Your task to perform on an android device: Search for pizza restaurants on Maps Image 0: 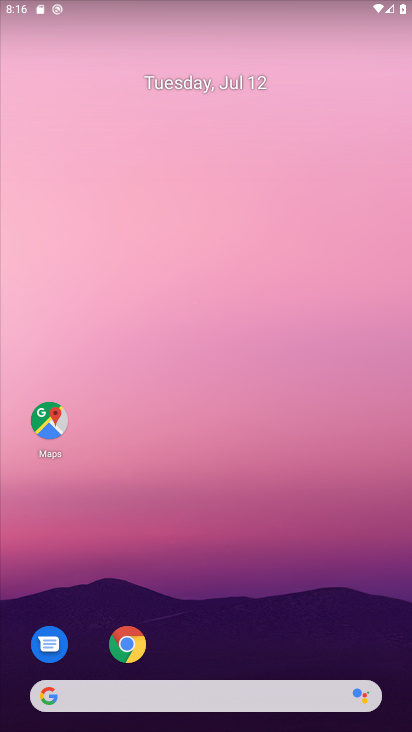
Step 0: drag from (305, 594) to (348, 3)
Your task to perform on an android device: Search for pizza restaurants on Maps Image 1: 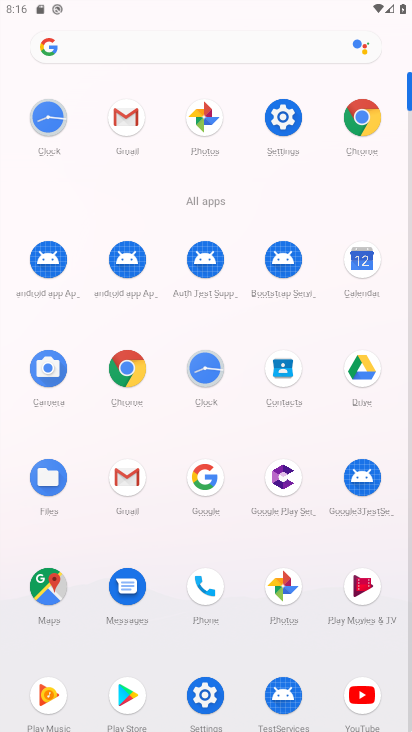
Step 1: click (57, 577)
Your task to perform on an android device: Search for pizza restaurants on Maps Image 2: 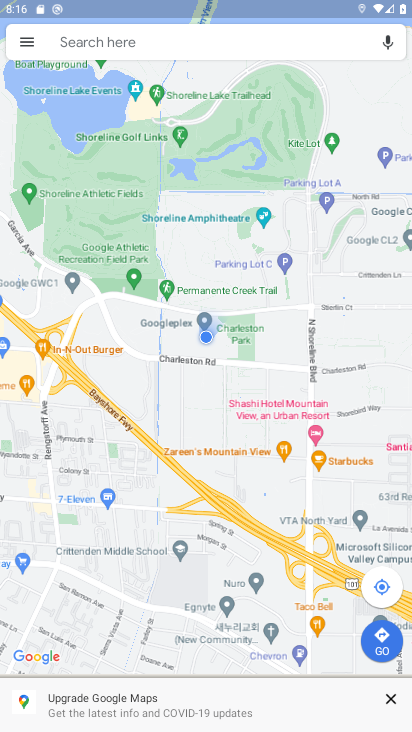
Step 2: click (138, 49)
Your task to perform on an android device: Search for pizza restaurants on Maps Image 3: 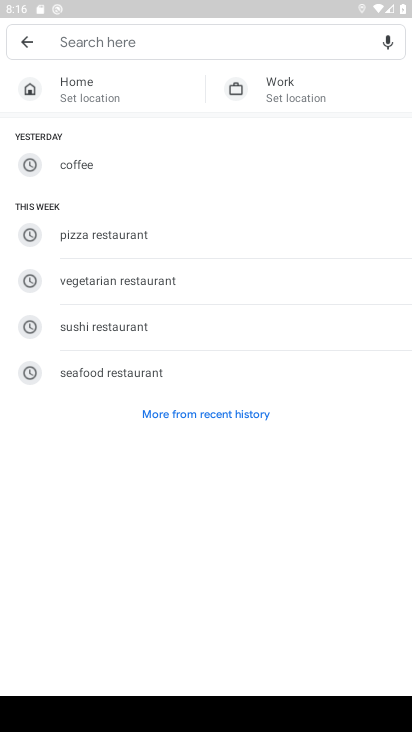
Step 3: click (100, 241)
Your task to perform on an android device: Search for pizza restaurants on Maps Image 4: 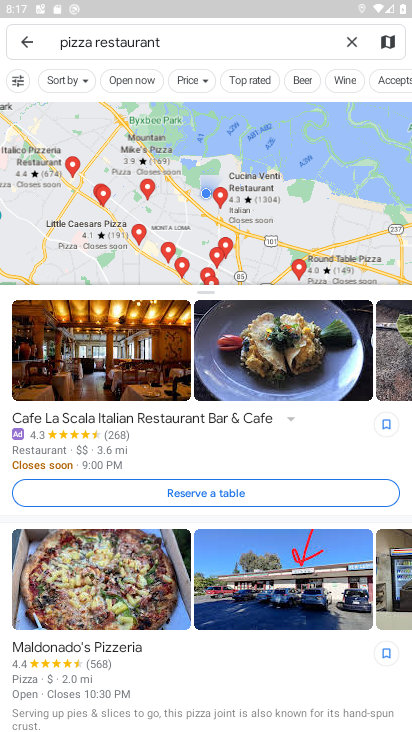
Step 4: task complete